Your task to perform on an android device: add a label to a message in the gmail app Image 0: 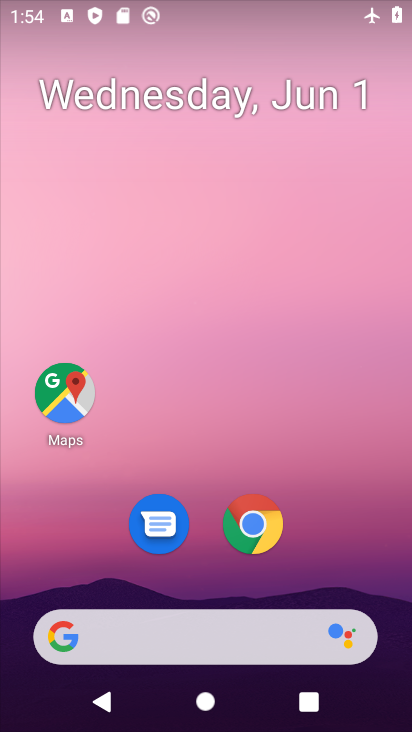
Step 0: drag from (325, 508) to (361, 9)
Your task to perform on an android device: add a label to a message in the gmail app Image 1: 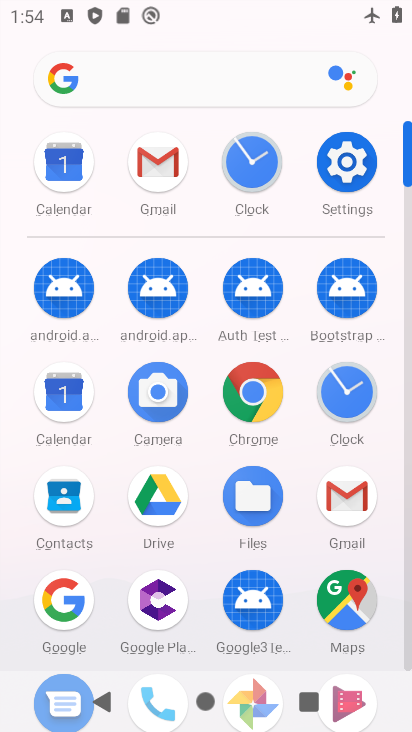
Step 1: click (173, 168)
Your task to perform on an android device: add a label to a message in the gmail app Image 2: 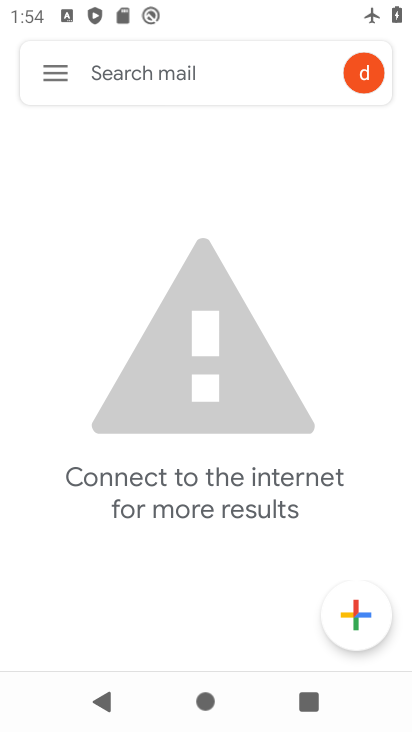
Step 2: task complete